Your task to perform on an android device: add a contact Image 0: 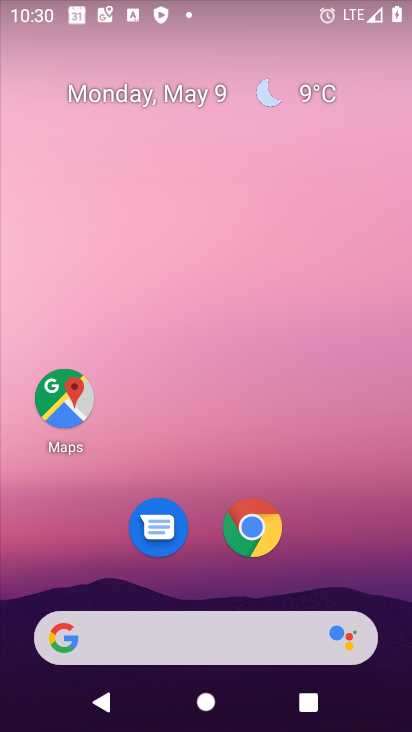
Step 0: drag from (396, 639) to (320, 17)
Your task to perform on an android device: add a contact Image 1: 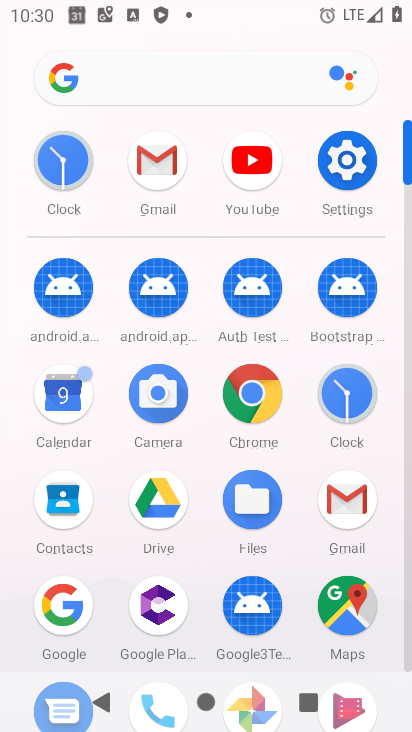
Step 1: click (405, 655)
Your task to perform on an android device: add a contact Image 2: 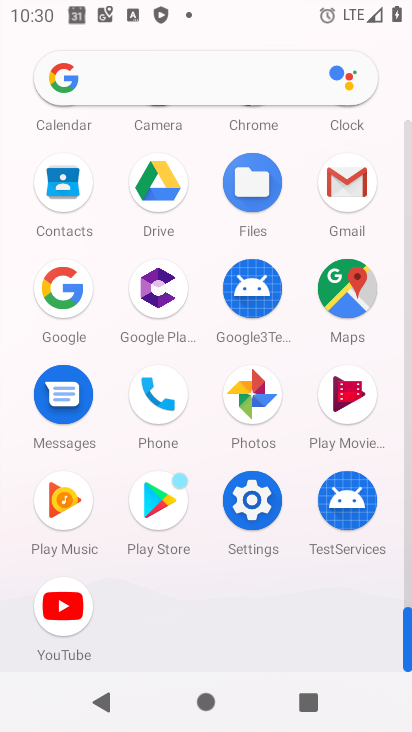
Step 2: click (60, 182)
Your task to perform on an android device: add a contact Image 3: 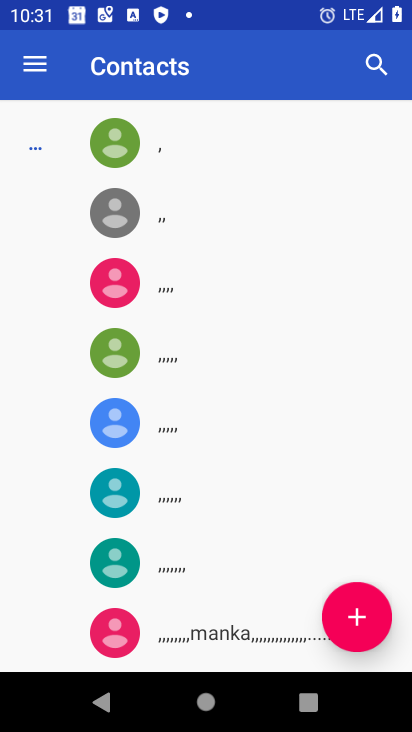
Step 3: click (353, 615)
Your task to perform on an android device: add a contact Image 4: 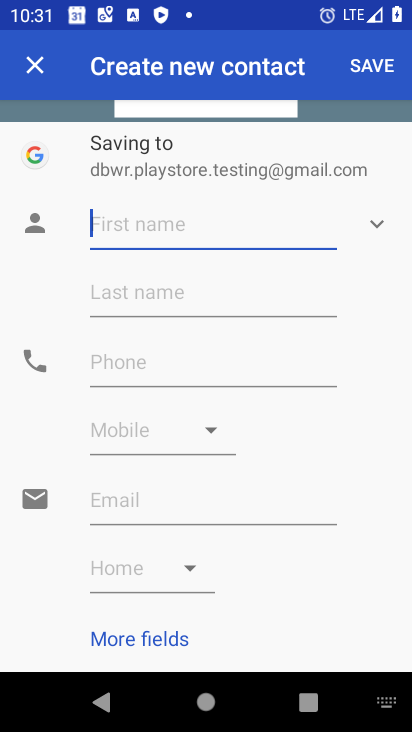
Step 4: type "dassdgrgh"
Your task to perform on an android device: add a contact Image 5: 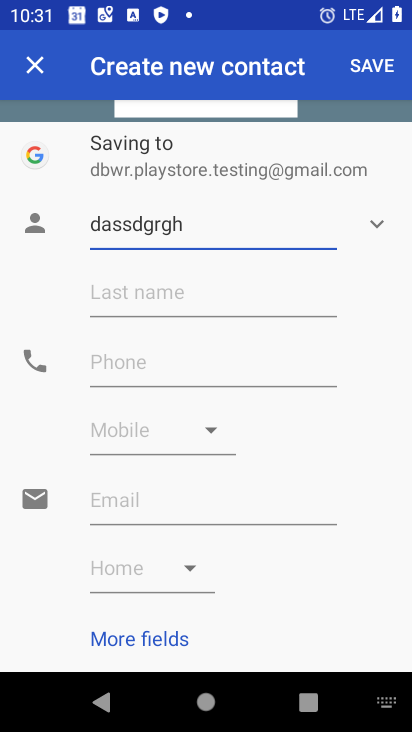
Step 5: click (113, 368)
Your task to perform on an android device: add a contact Image 6: 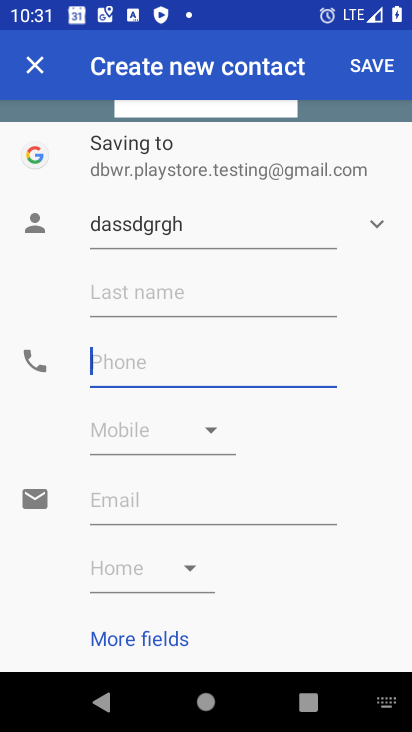
Step 6: type "986435"
Your task to perform on an android device: add a contact Image 7: 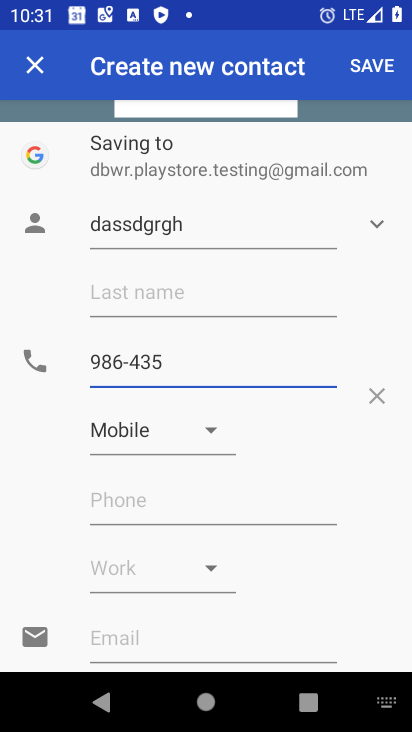
Step 7: click (202, 431)
Your task to perform on an android device: add a contact Image 8: 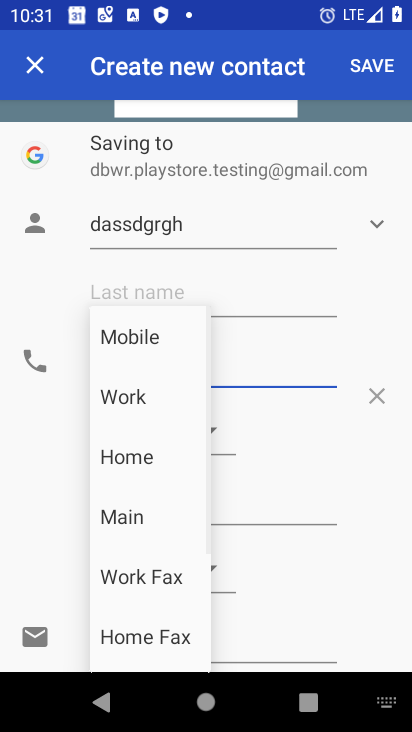
Step 8: click (115, 404)
Your task to perform on an android device: add a contact Image 9: 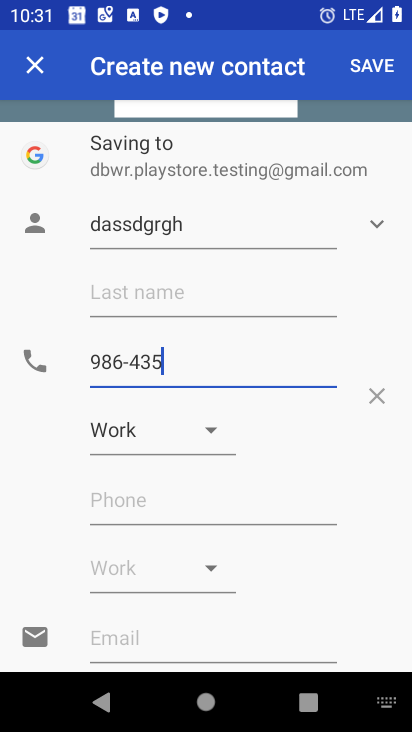
Step 9: click (365, 60)
Your task to perform on an android device: add a contact Image 10: 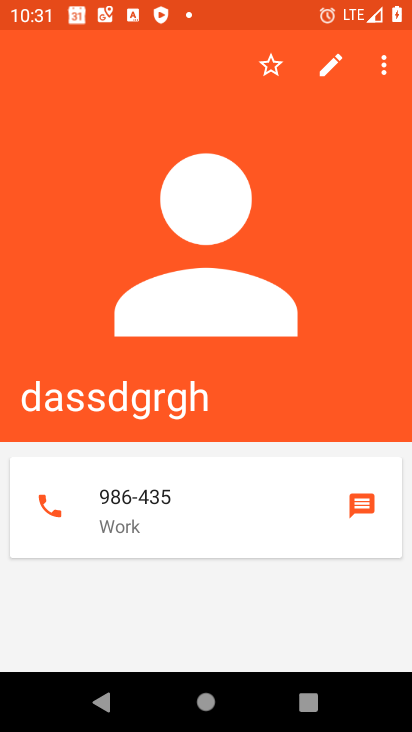
Step 10: task complete